Your task to perform on an android device: Search for pizza restaurants on Maps Image 0: 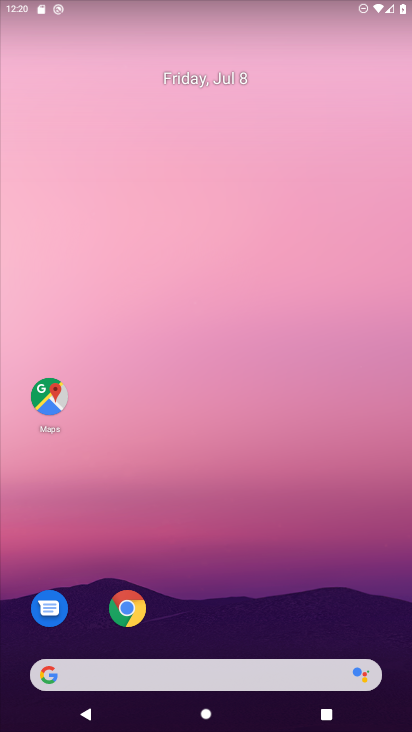
Step 0: drag from (251, 727) to (215, 119)
Your task to perform on an android device: Search for pizza restaurants on Maps Image 1: 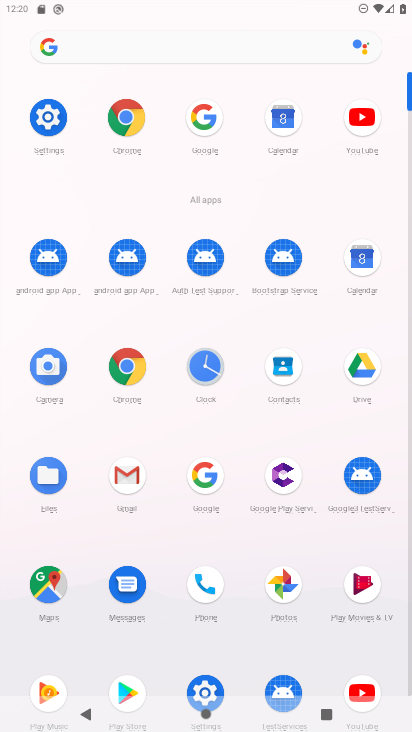
Step 1: click (43, 582)
Your task to perform on an android device: Search for pizza restaurants on Maps Image 2: 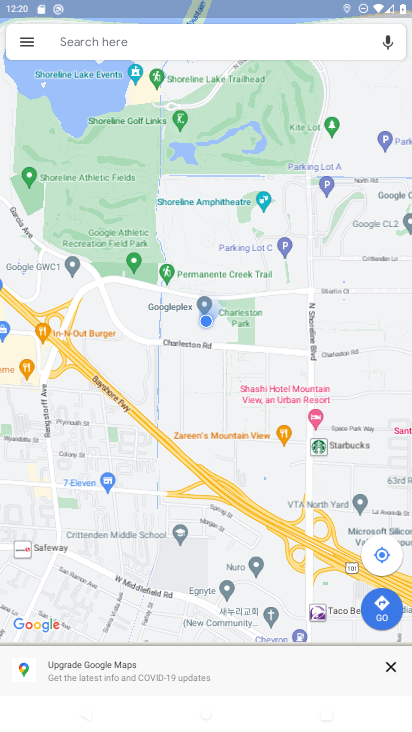
Step 2: click (195, 43)
Your task to perform on an android device: Search for pizza restaurants on Maps Image 3: 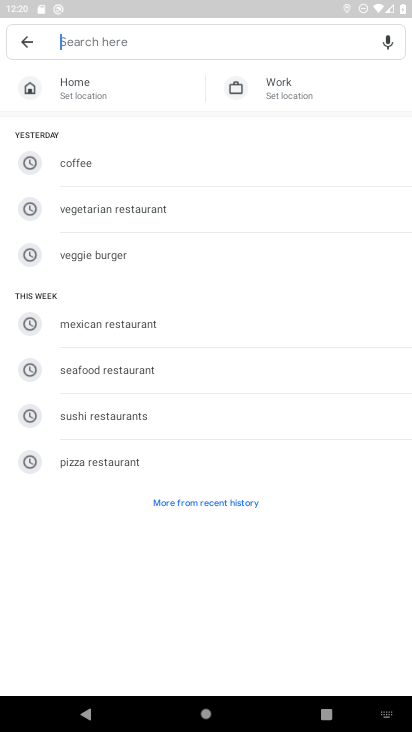
Step 3: type "Pizza restaurants"
Your task to perform on an android device: Search for pizza restaurants on Maps Image 4: 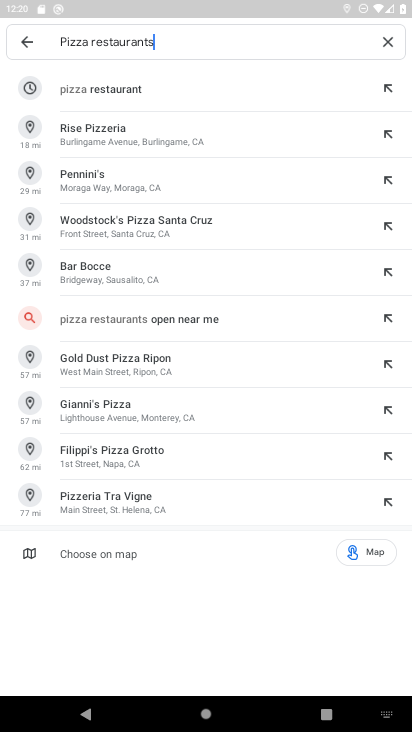
Step 4: click (99, 87)
Your task to perform on an android device: Search for pizza restaurants on Maps Image 5: 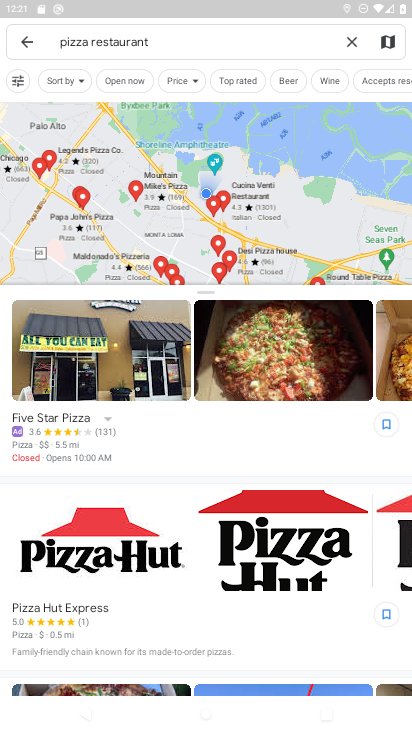
Step 5: task complete